Your task to perform on an android device: Show me some nice wallpapers for my laptop Image 0: 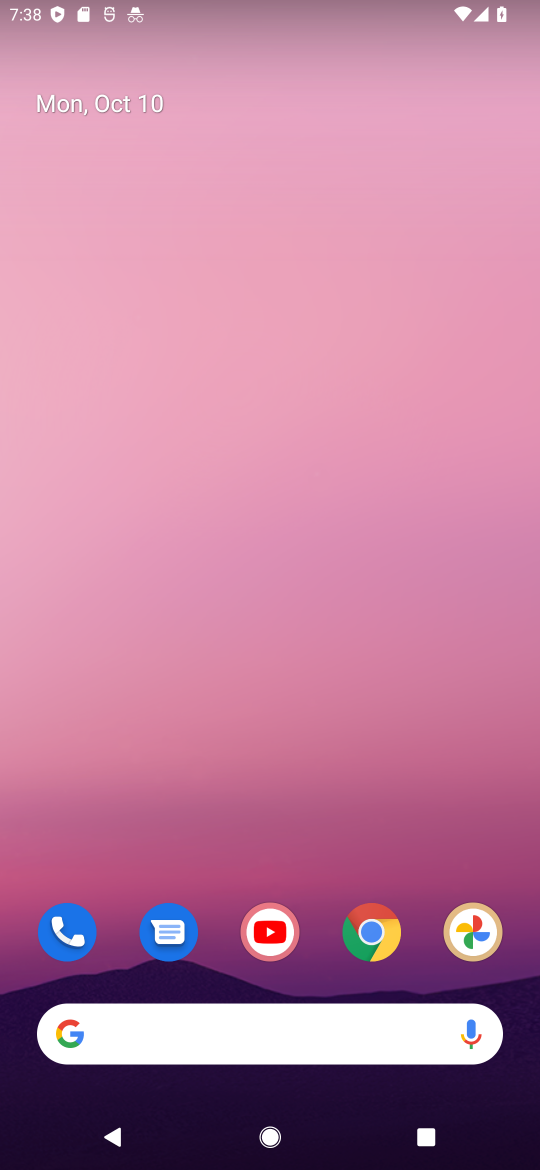
Step 0: drag from (325, 991) to (371, 164)
Your task to perform on an android device: Show me some nice wallpapers for my laptop Image 1: 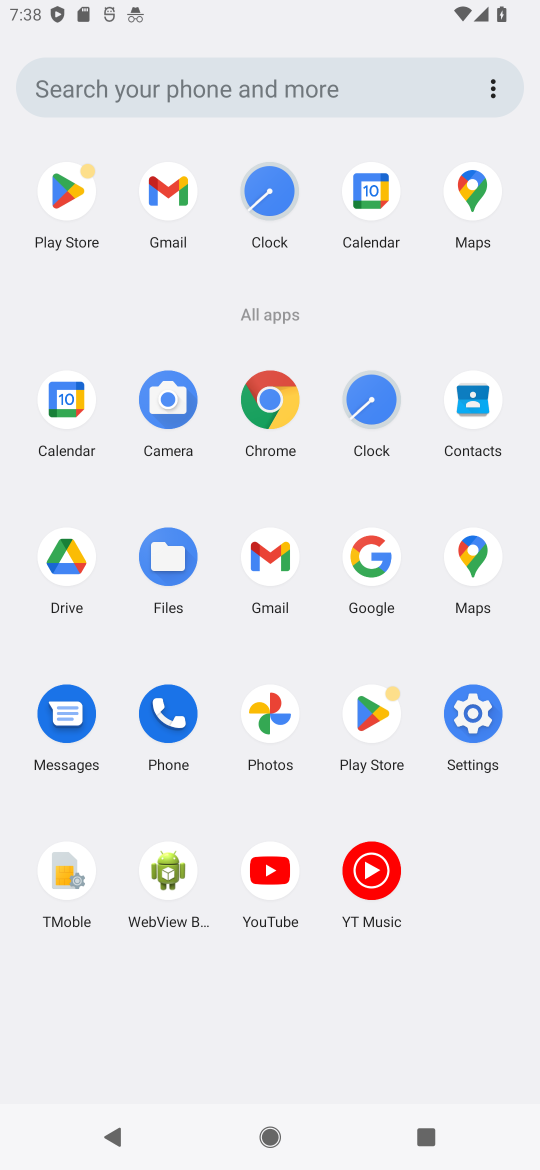
Step 1: click (269, 398)
Your task to perform on an android device: Show me some nice wallpapers for my laptop Image 2: 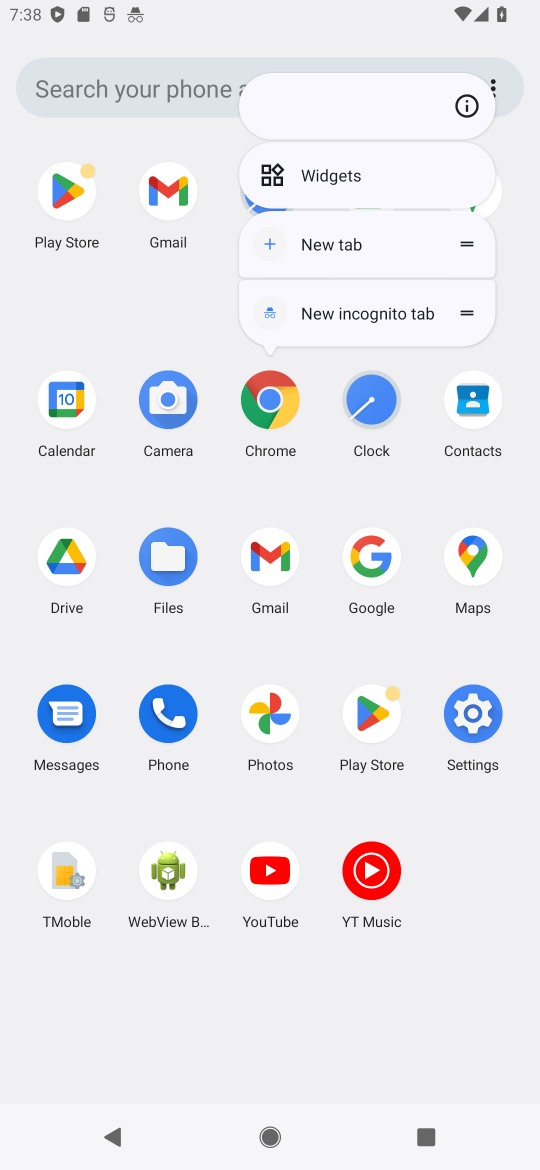
Step 2: click (269, 398)
Your task to perform on an android device: Show me some nice wallpapers for my laptop Image 3: 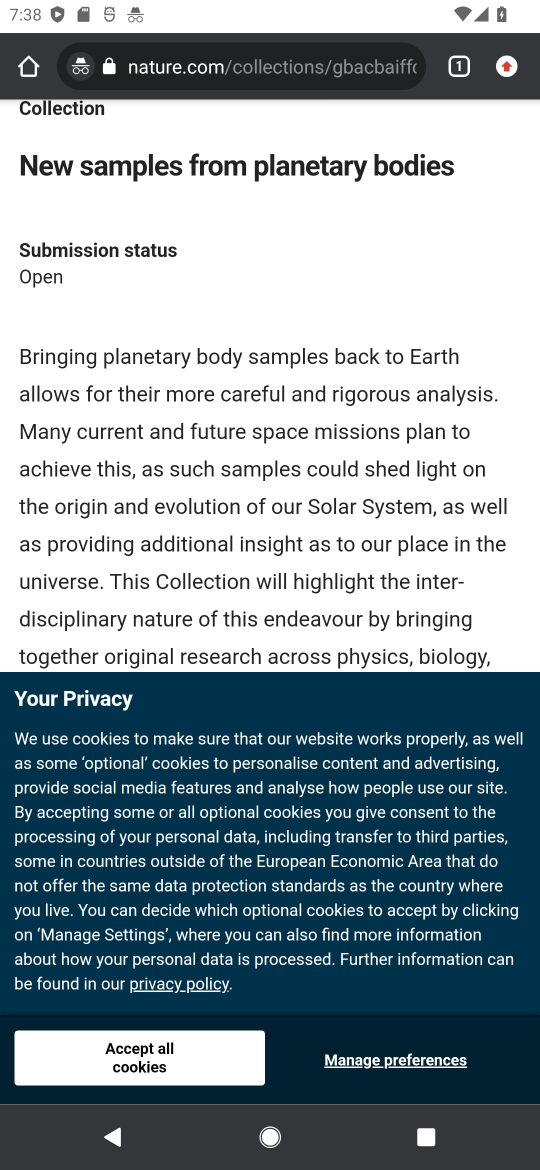
Step 3: click (261, 62)
Your task to perform on an android device: Show me some nice wallpapers for my laptop Image 4: 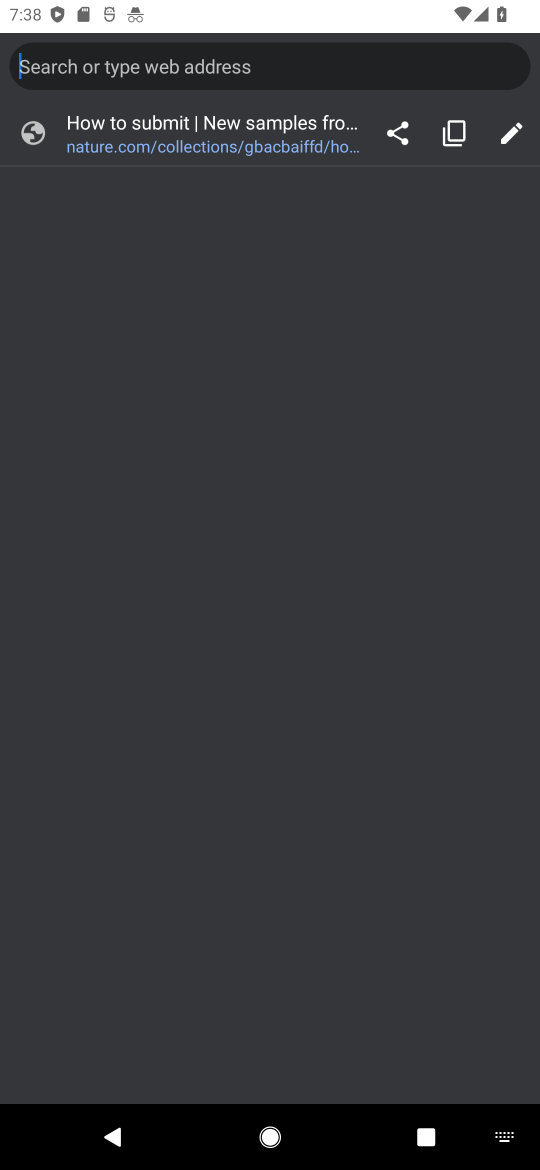
Step 4: type "some nice wallpapers for my laptop"
Your task to perform on an android device: Show me some nice wallpapers for my laptop Image 5: 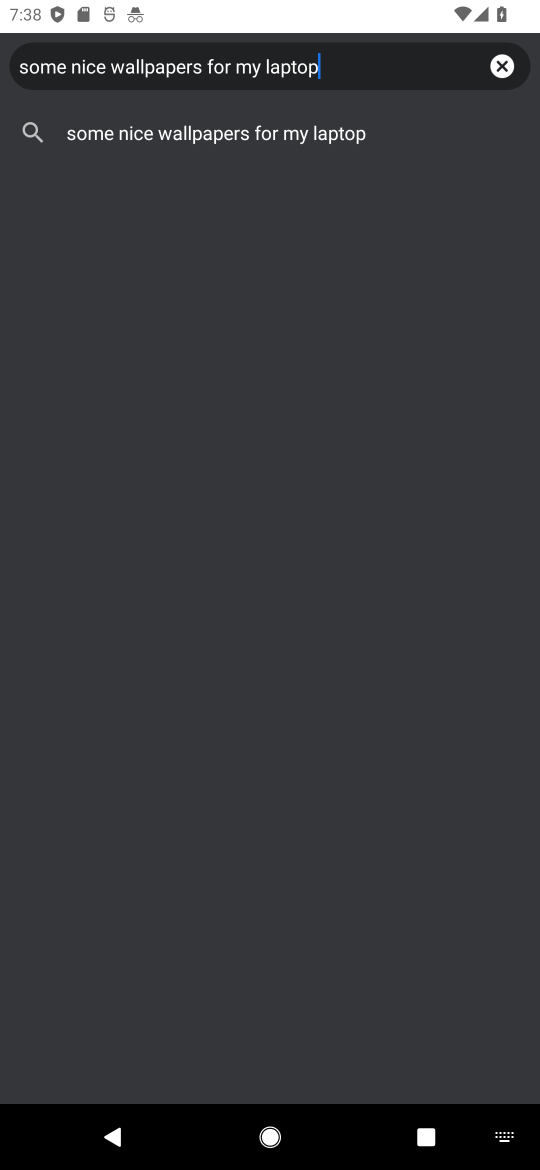
Step 5: press enter
Your task to perform on an android device: Show me some nice wallpapers for my laptop Image 6: 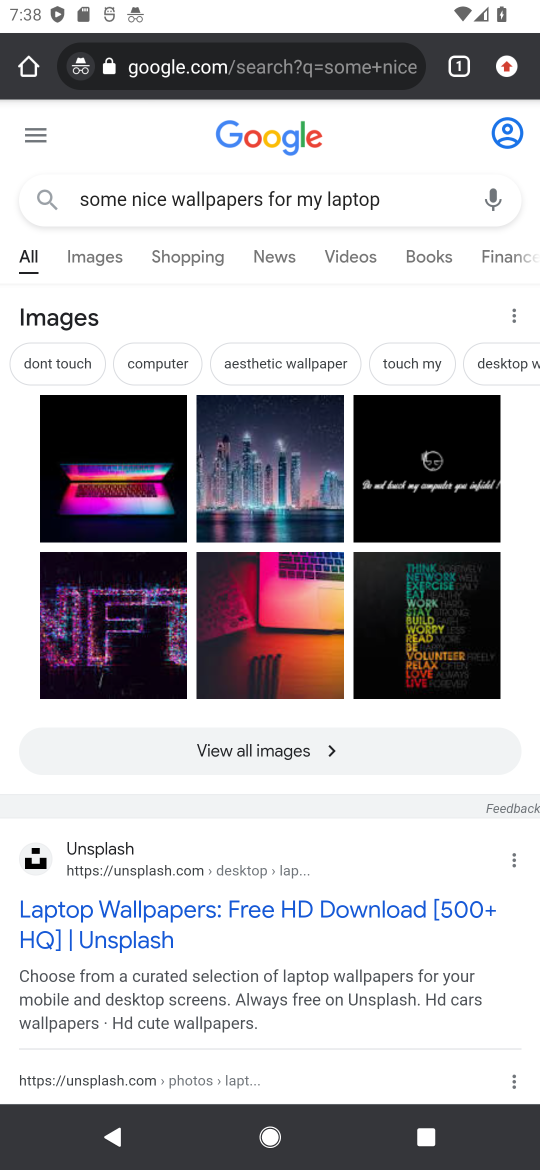
Step 6: task complete